Your task to perform on an android device: Open the calendar app, open the side menu, and click the "Day" option Image 0: 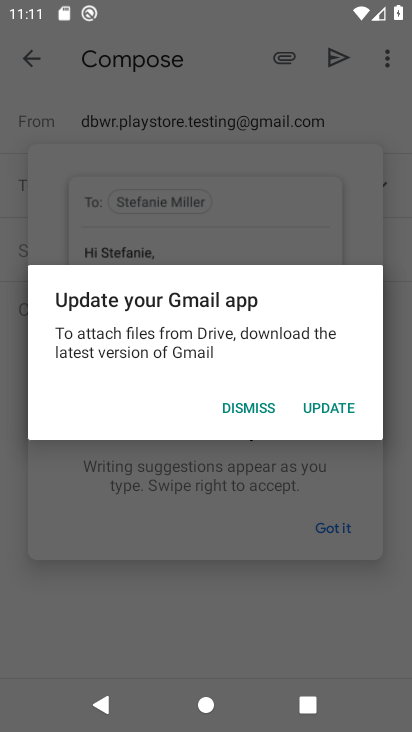
Step 0: press home button
Your task to perform on an android device: Open the calendar app, open the side menu, and click the "Day" option Image 1: 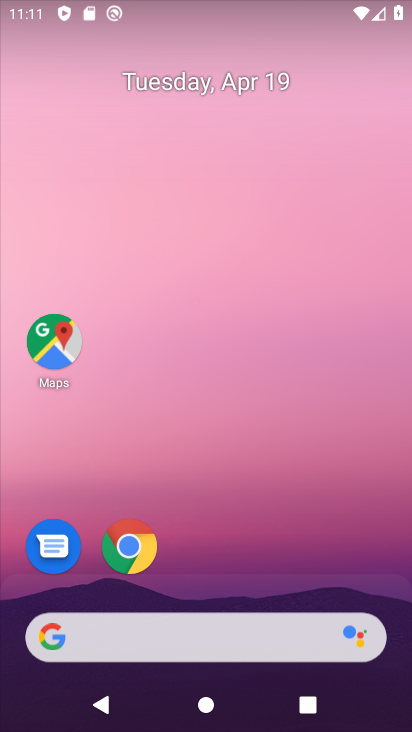
Step 1: drag from (272, 358) to (239, 52)
Your task to perform on an android device: Open the calendar app, open the side menu, and click the "Day" option Image 2: 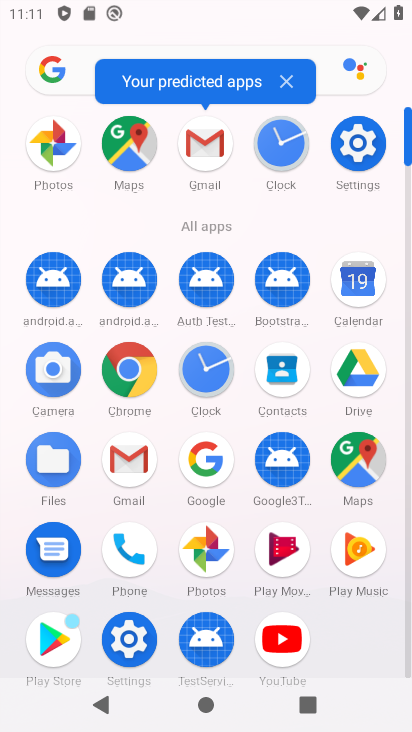
Step 2: drag from (252, 215) to (250, 34)
Your task to perform on an android device: Open the calendar app, open the side menu, and click the "Day" option Image 3: 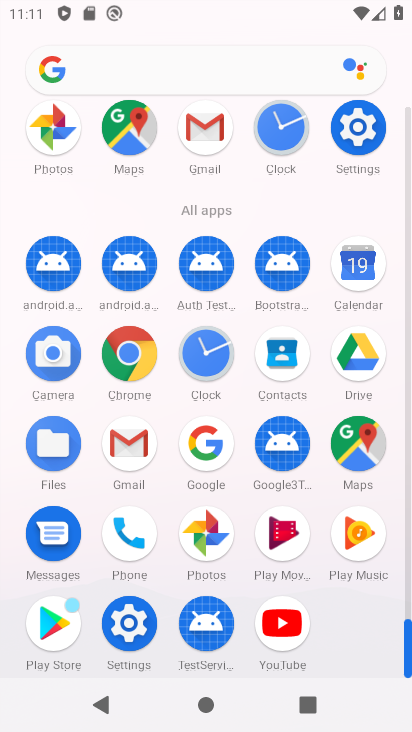
Step 3: click (354, 266)
Your task to perform on an android device: Open the calendar app, open the side menu, and click the "Day" option Image 4: 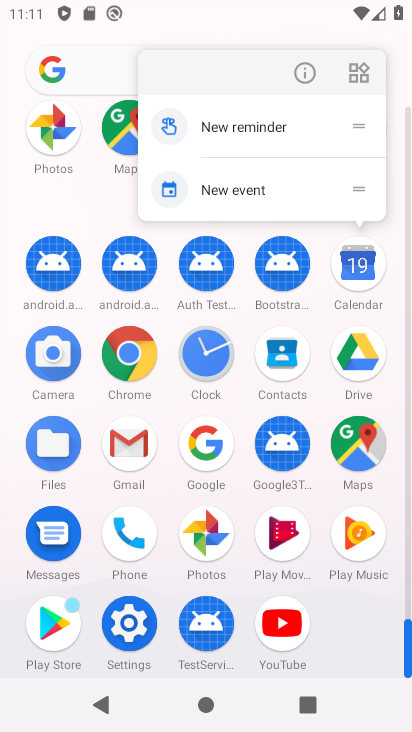
Step 4: click (356, 266)
Your task to perform on an android device: Open the calendar app, open the side menu, and click the "Day" option Image 5: 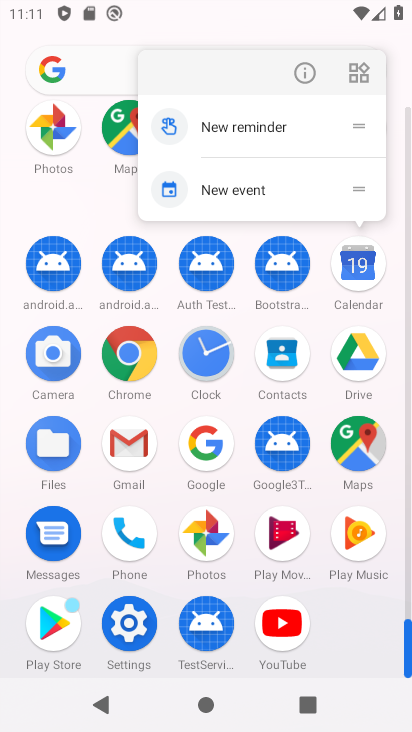
Step 5: click (356, 266)
Your task to perform on an android device: Open the calendar app, open the side menu, and click the "Day" option Image 6: 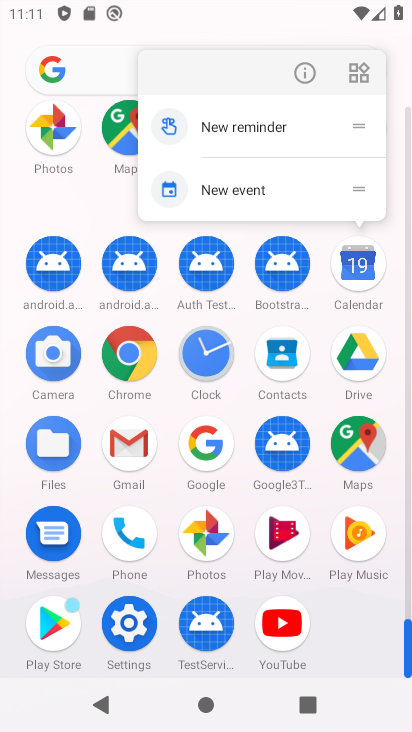
Step 6: click (360, 264)
Your task to perform on an android device: Open the calendar app, open the side menu, and click the "Day" option Image 7: 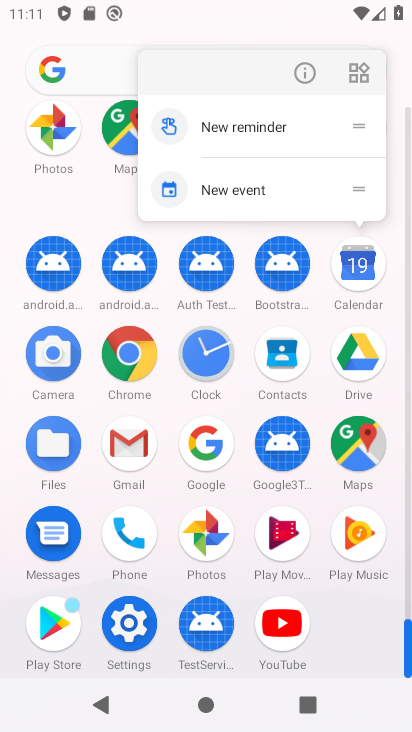
Step 7: click (360, 264)
Your task to perform on an android device: Open the calendar app, open the side menu, and click the "Day" option Image 8: 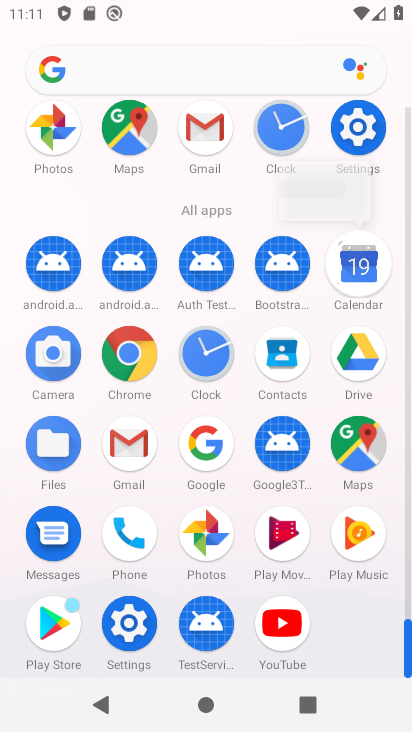
Step 8: click (360, 264)
Your task to perform on an android device: Open the calendar app, open the side menu, and click the "Day" option Image 9: 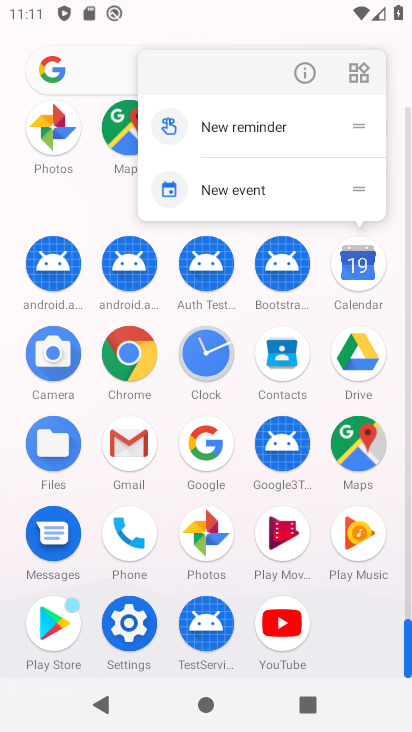
Step 9: click (360, 253)
Your task to perform on an android device: Open the calendar app, open the side menu, and click the "Day" option Image 10: 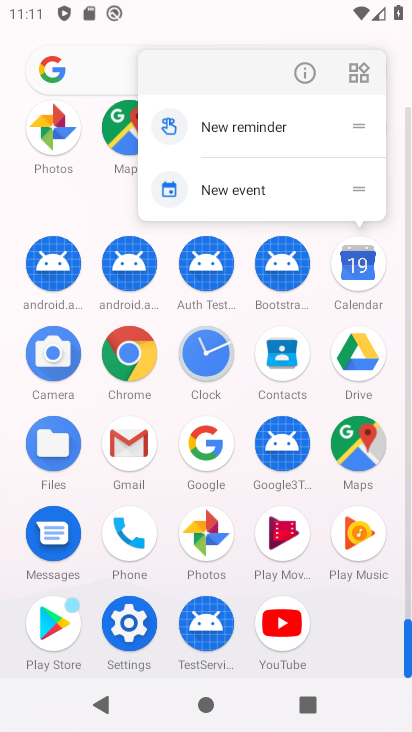
Step 10: click (361, 267)
Your task to perform on an android device: Open the calendar app, open the side menu, and click the "Day" option Image 11: 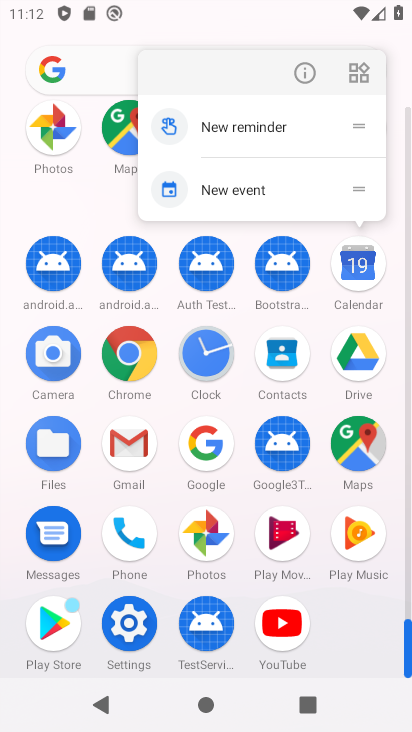
Step 11: click (196, 28)
Your task to perform on an android device: Open the calendar app, open the side menu, and click the "Day" option Image 12: 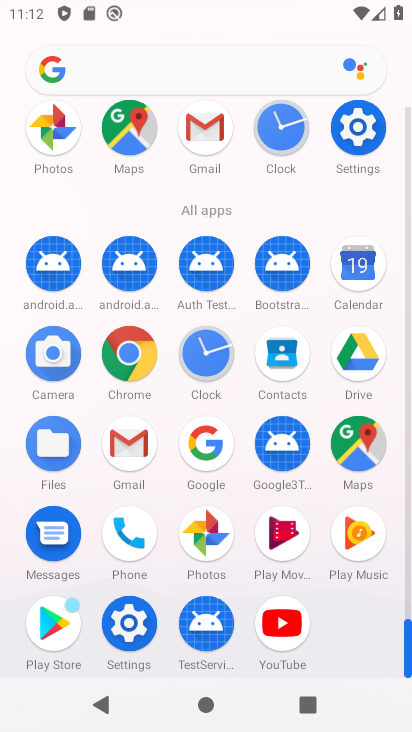
Step 12: click (103, 38)
Your task to perform on an android device: Open the calendar app, open the side menu, and click the "Day" option Image 13: 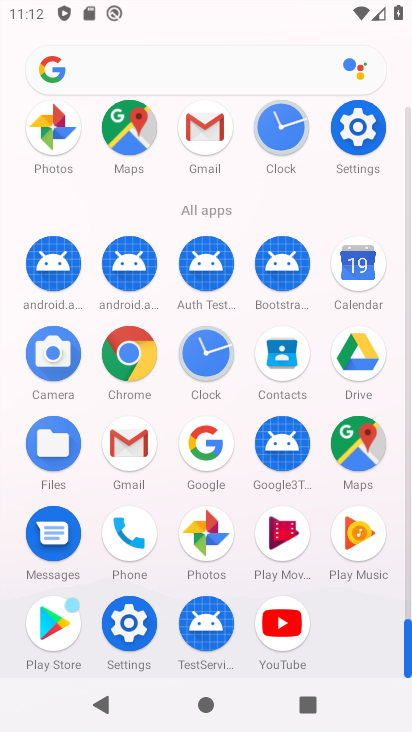
Step 13: click (352, 252)
Your task to perform on an android device: Open the calendar app, open the side menu, and click the "Day" option Image 14: 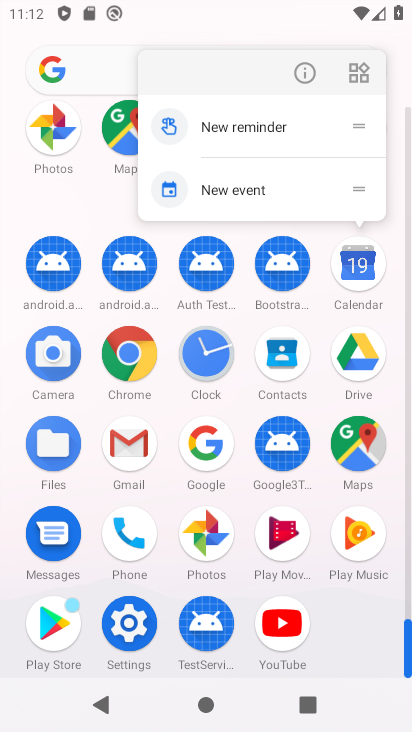
Step 14: click (363, 623)
Your task to perform on an android device: Open the calendar app, open the side menu, and click the "Day" option Image 15: 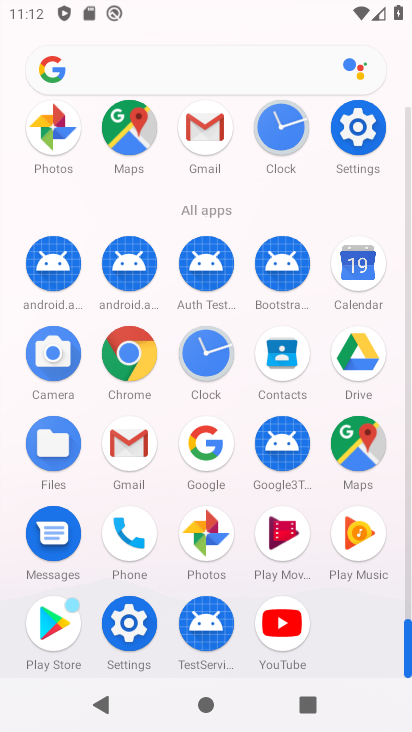
Step 15: click (349, 265)
Your task to perform on an android device: Open the calendar app, open the side menu, and click the "Day" option Image 16: 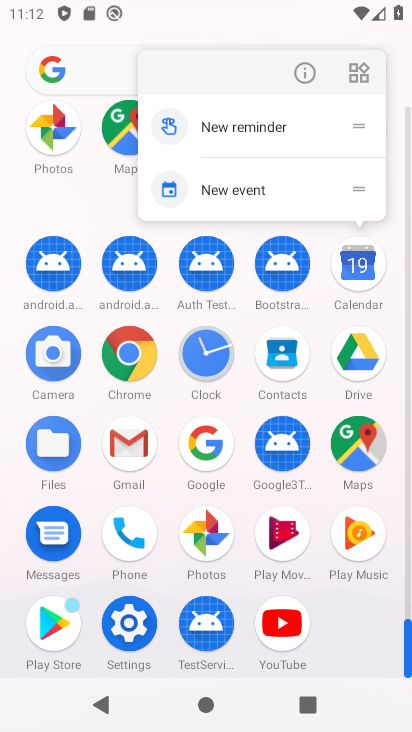
Step 16: click (351, 265)
Your task to perform on an android device: Open the calendar app, open the side menu, and click the "Day" option Image 17: 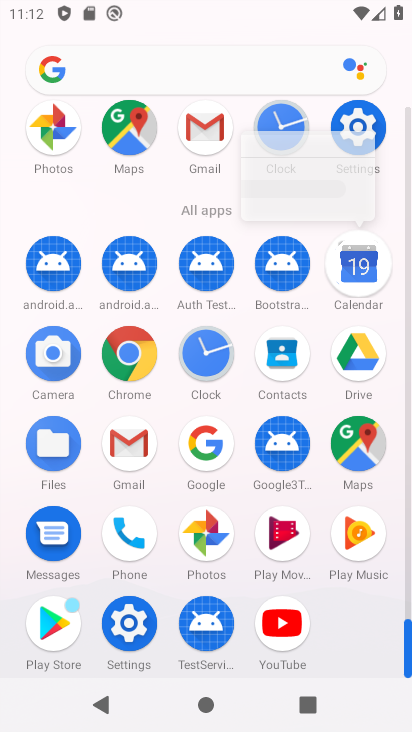
Step 17: click (351, 265)
Your task to perform on an android device: Open the calendar app, open the side menu, and click the "Day" option Image 18: 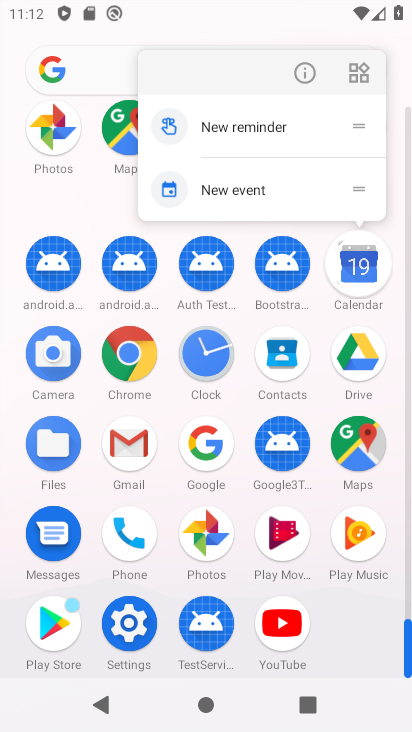
Step 18: click (351, 265)
Your task to perform on an android device: Open the calendar app, open the side menu, and click the "Day" option Image 19: 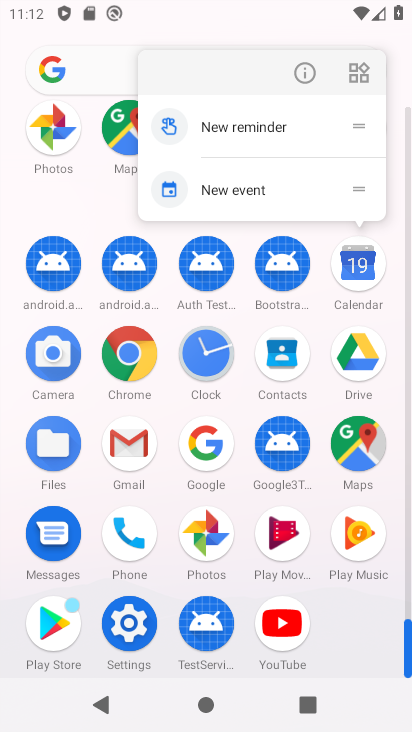
Step 19: click (369, 611)
Your task to perform on an android device: Open the calendar app, open the side menu, and click the "Day" option Image 20: 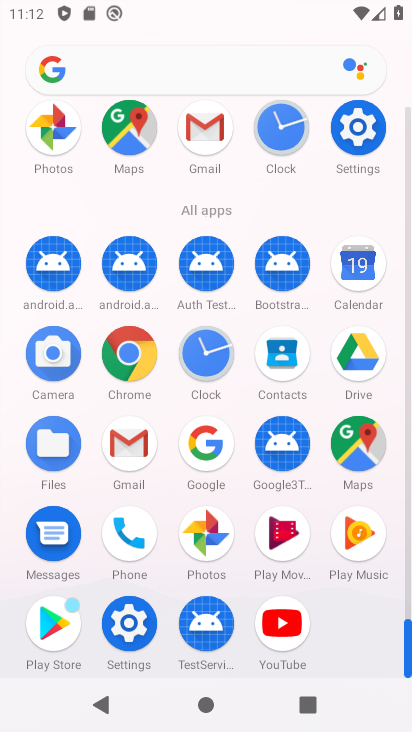
Step 20: click (352, 266)
Your task to perform on an android device: Open the calendar app, open the side menu, and click the "Day" option Image 21: 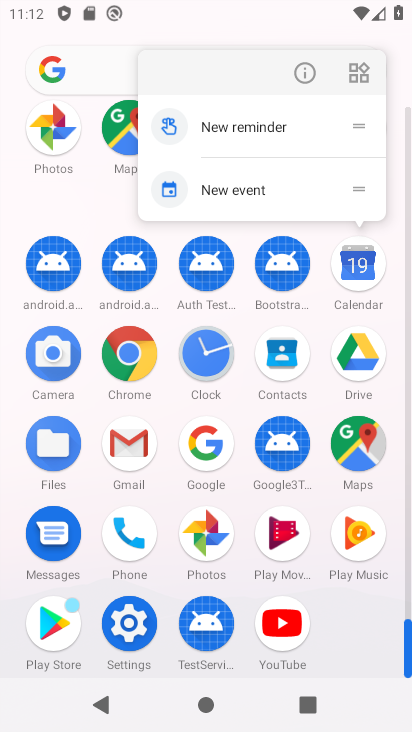
Step 21: click (363, 607)
Your task to perform on an android device: Open the calendar app, open the side menu, and click the "Day" option Image 22: 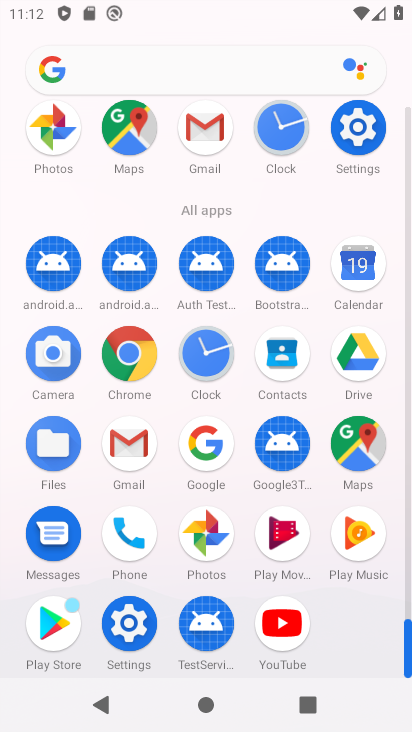
Step 22: click (362, 258)
Your task to perform on an android device: Open the calendar app, open the side menu, and click the "Day" option Image 23: 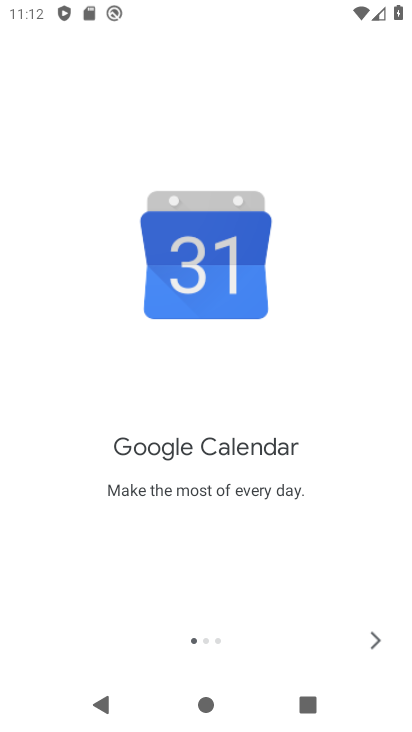
Step 23: click (376, 636)
Your task to perform on an android device: Open the calendar app, open the side menu, and click the "Day" option Image 24: 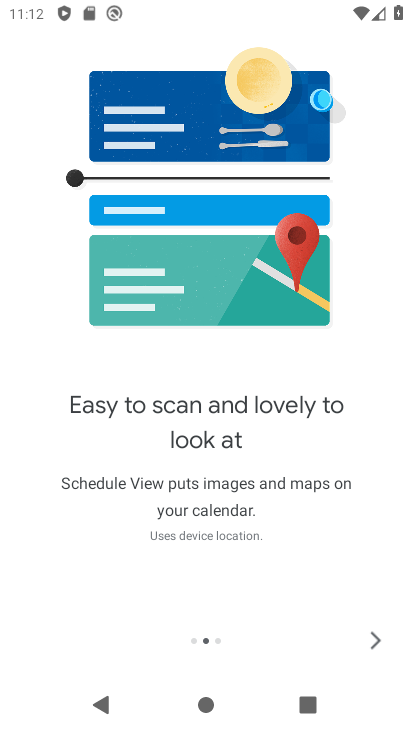
Step 24: click (376, 636)
Your task to perform on an android device: Open the calendar app, open the side menu, and click the "Day" option Image 25: 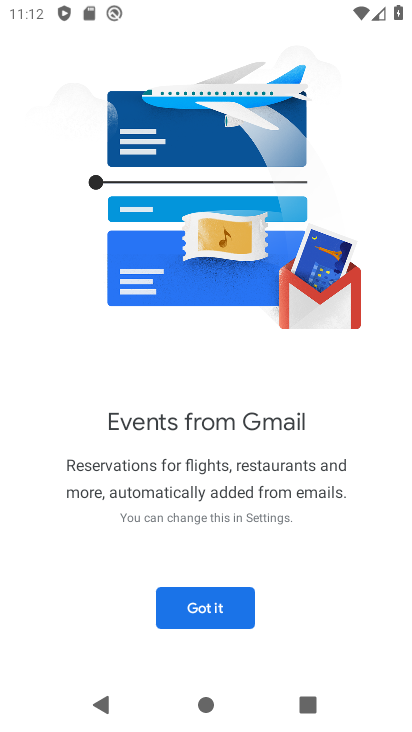
Step 25: click (219, 615)
Your task to perform on an android device: Open the calendar app, open the side menu, and click the "Day" option Image 26: 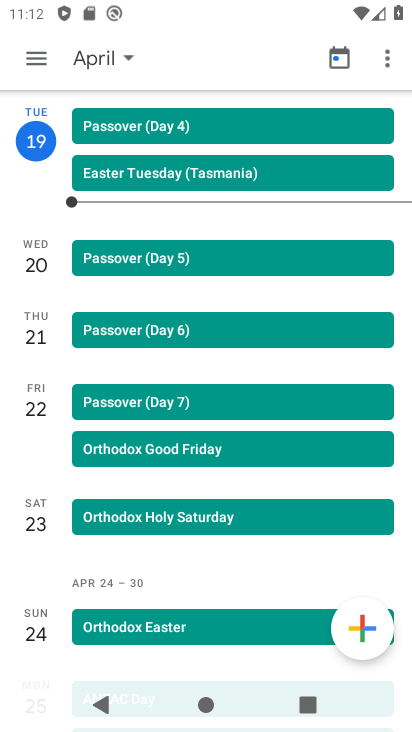
Step 26: click (28, 50)
Your task to perform on an android device: Open the calendar app, open the side menu, and click the "Day" option Image 27: 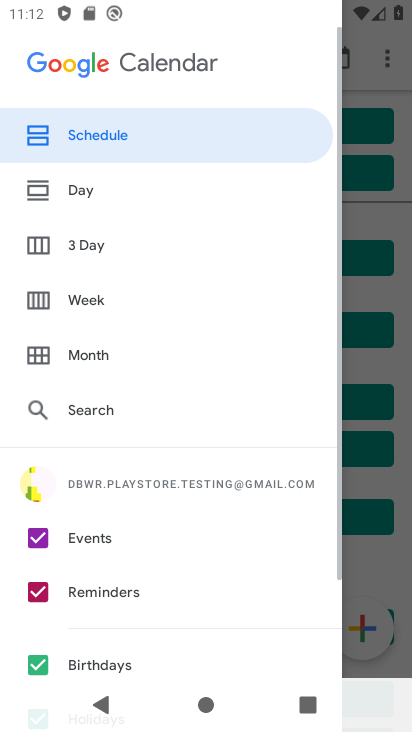
Step 27: click (78, 183)
Your task to perform on an android device: Open the calendar app, open the side menu, and click the "Day" option Image 28: 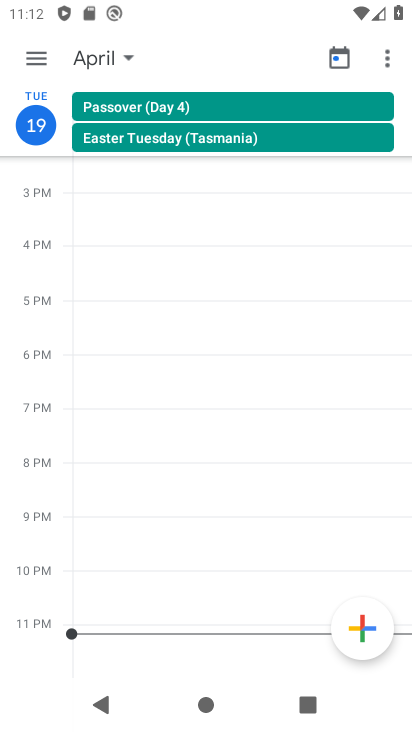
Step 28: task complete